Your task to perform on an android device: read, delete, or share a saved page in the chrome app Image 0: 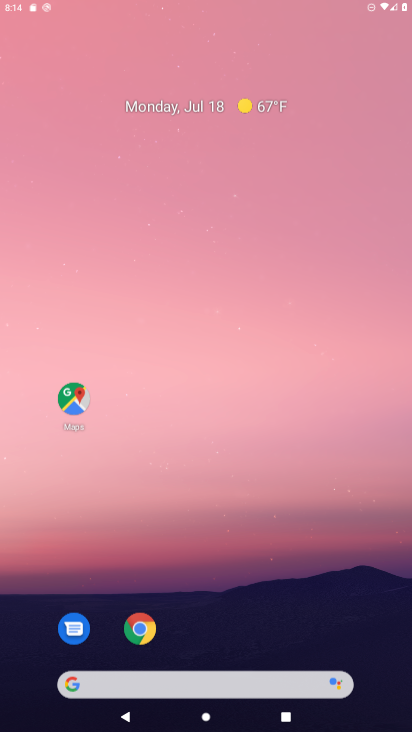
Step 0: press home button
Your task to perform on an android device: read, delete, or share a saved page in the chrome app Image 1: 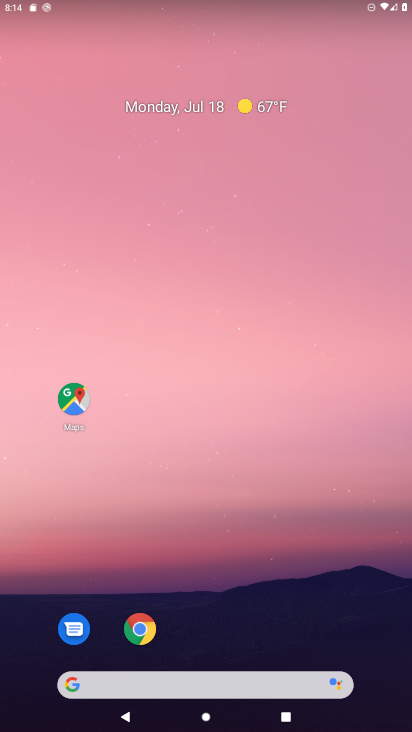
Step 1: click (151, 626)
Your task to perform on an android device: read, delete, or share a saved page in the chrome app Image 2: 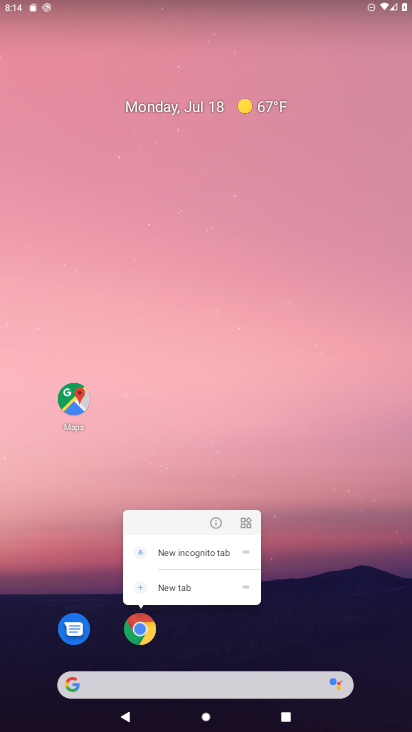
Step 2: click (153, 620)
Your task to perform on an android device: read, delete, or share a saved page in the chrome app Image 3: 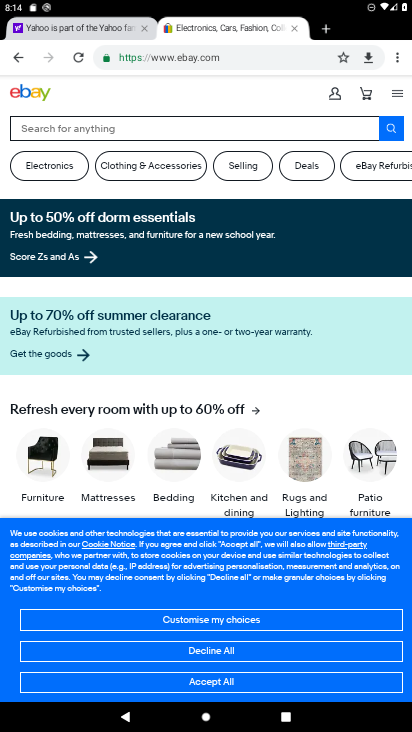
Step 3: click (407, 55)
Your task to perform on an android device: read, delete, or share a saved page in the chrome app Image 4: 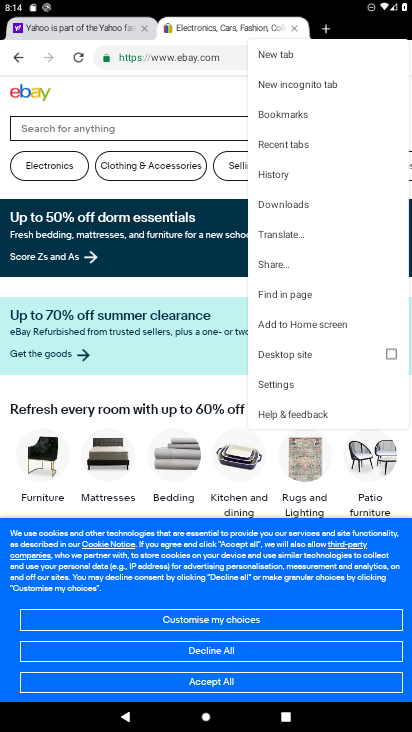
Step 4: click (272, 205)
Your task to perform on an android device: read, delete, or share a saved page in the chrome app Image 5: 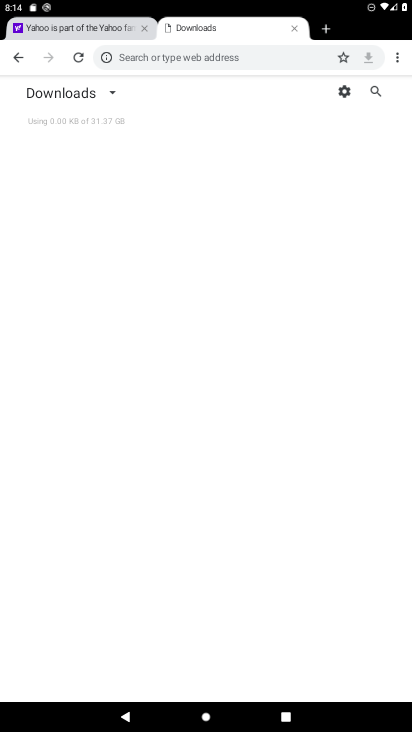
Step 5: task complete